Your task to perform on an android device: open app "PUBG MOBILE" (install if not already installed), go to login, and select forgot password Image 0: 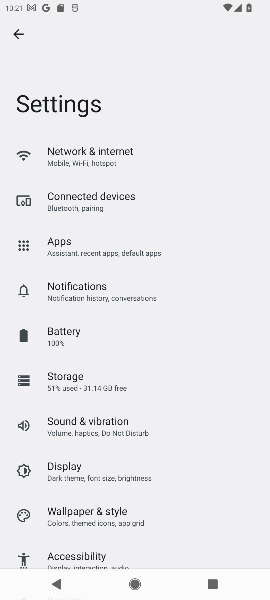
Step 0: press home button
Your task to perform on an android device: open app "PUBG MOBILE" (install if not already installed), go to login, and select forgot password Image 1: 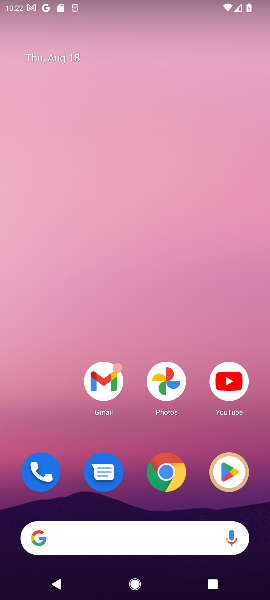
Step 1: click (231, 487)
Your task to perform on an android device: open app "PUBG MOBILE" (install if not already installed), go to login, and select forgot password Image 2: 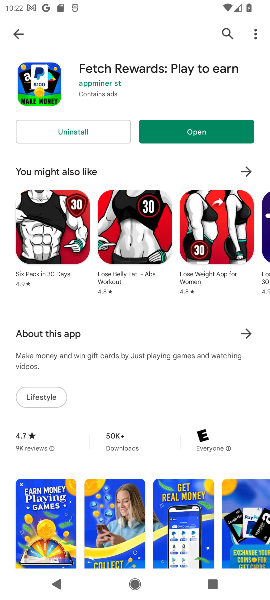
Step 2: click (224, 36)
Your task to perform on an android device: open app "PUBG MOBILE" (install if not already installed), go to login, and select forgot password Image 3: 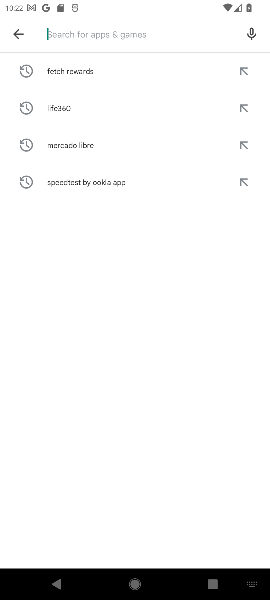
Step 3: type "pubg mobile"
Your task to perform on an android device: open app "PUBG MOBILE" (install if not already installed), go to login, and select forgot password Image 4: 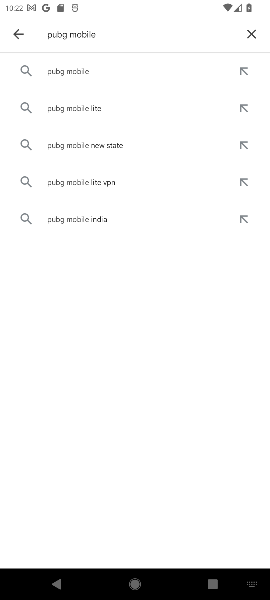
Step 4: click (122, 72)
Your task to perform on an android device: open app "PUBG MOBILE" (install if not already installed), go to login, and select forgot password Image 5: 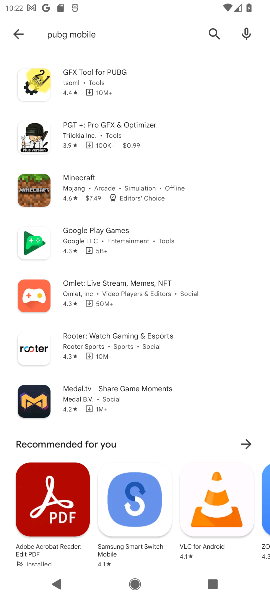
Step 5: task complete